Your task to perform on an android device: Add asus zenbook to the cart on amazon, then select checkout. Image 0: 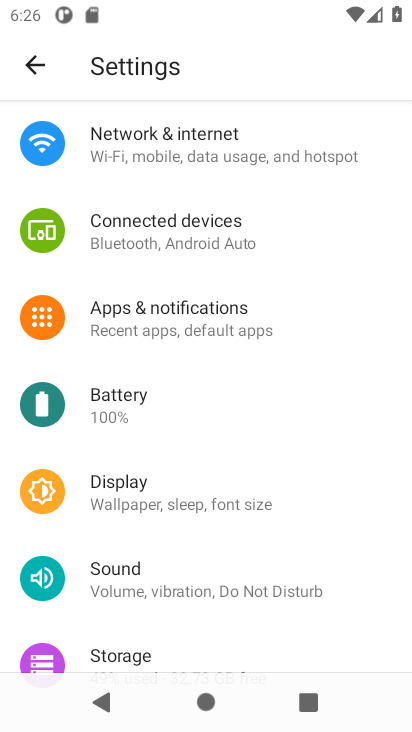
Step 0: press home button
Your task to perform on an android device: Add asus zenbook to the cart on amazon, then select checkout. Image 1: 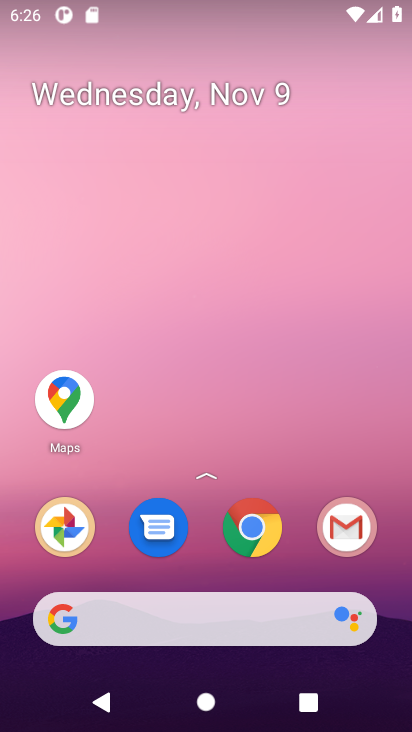
Step 1: drag from (197, 484) to (274, 12)
Your task to perform on an android device: Add asus zenbook to the cart on amazon, then select checkout. Image 2: 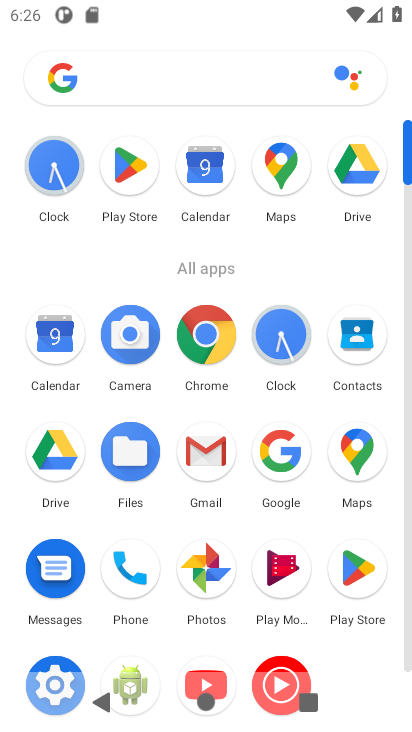
Step 2: click (206, 326)
Your task to perform on an android device: Add asus zenbook to the cart on amazon, then select checkout. Image 3: 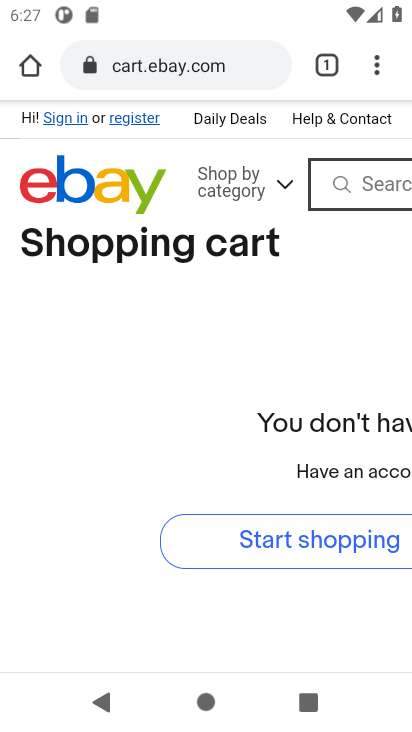
Step 3: click (160, 64)
Your task to perform on an android device: Add asus zenbook to the cart on amazon, then select checkout. Image 4: 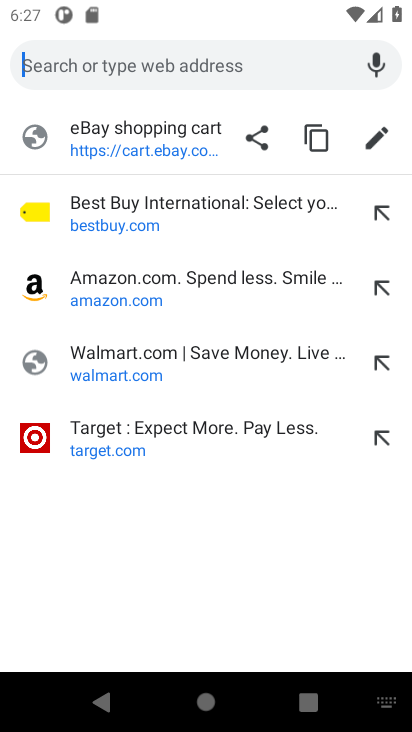
Step 4: click (116, 268)
Your task to perform on an android device: Add asus zenbook to the cart on amazon, then select checkout. Image 5: 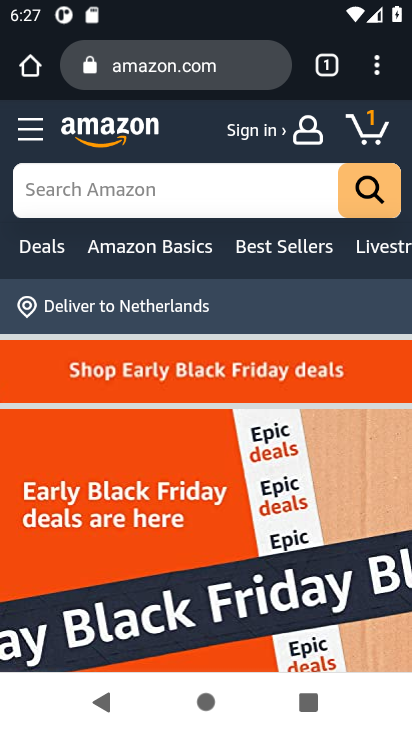
Step 5: click (91, 192)
Your task to perform on an android device: Add asus zenbook to the cart on amazon, then select checkout. Image 6: 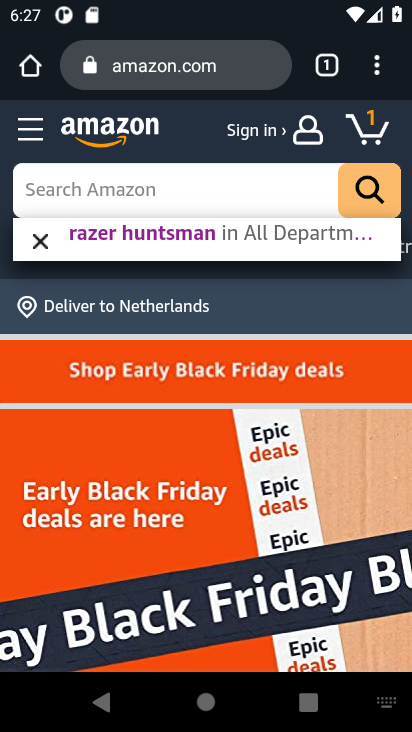
Step 6: type "asus zenbook"
Your task to perform on an android device: Add asus zenbook to the cart on amazon, then select checkout. Image 7: 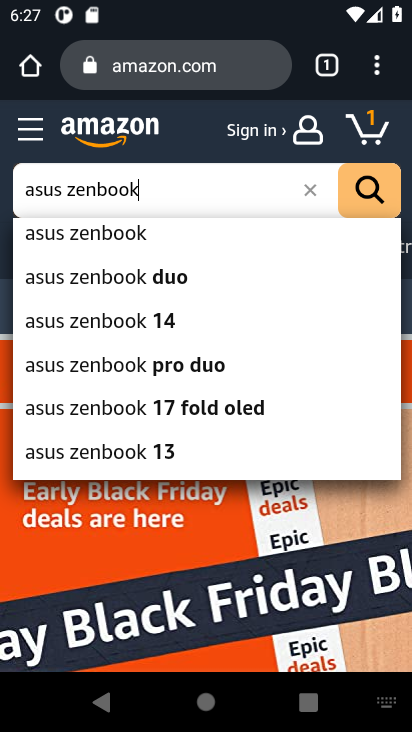
Step 7: click (116, 240)
Your task to perform on an android device: Add asus zenbook to the cart on amazon, then select checkout. Image 8: 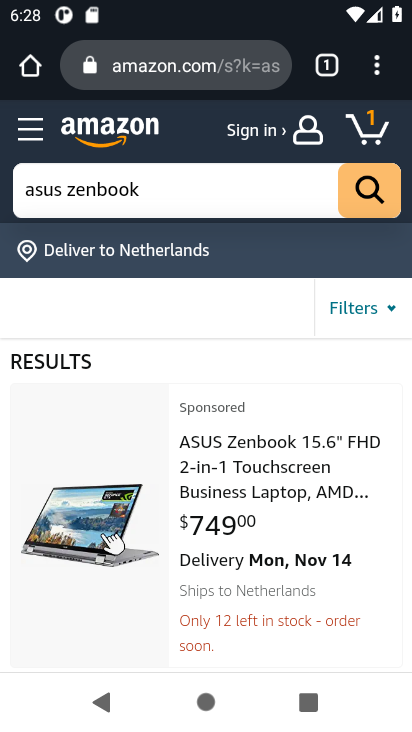
Step 8: click (218, 476)
Your task to perform on an android device: Add asus zenbook to the cart on amazon, then select checkout. Image 9: 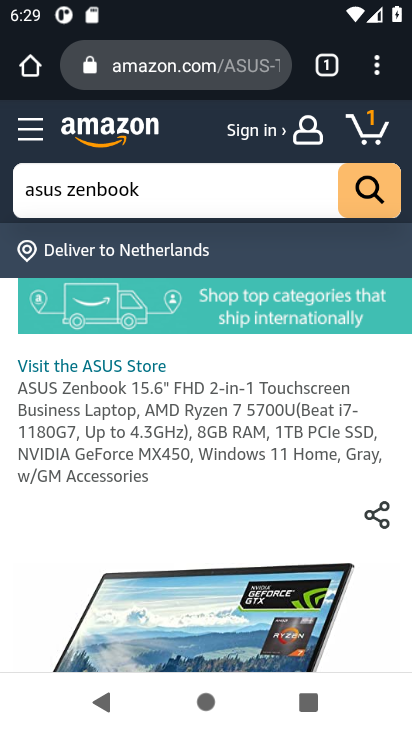
Step 9: drag from (167, 549) to (212, 5)
Your task to perform on an android device: Add asus zenbook to the cart on amazon, then select checkout. Image 10: 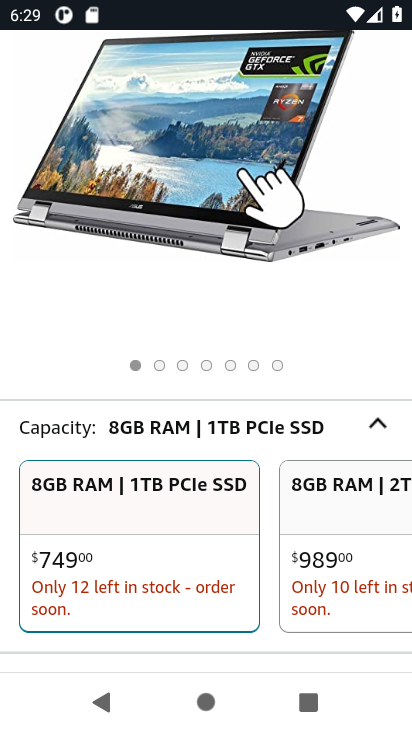
Step 10: drag from (262, 621) to (301, 82)
Your task to perform on an android device: Add asus zenbook to the cart on amazon, then select checkout. Image 11: 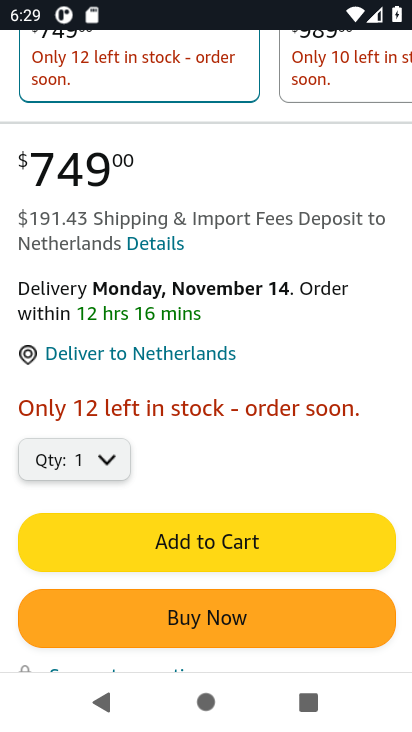
Step 11: click (208, 538)
Your task to perform on an android device: Add asus zenbook to the cart on amazon, then select checkout. Image 12: 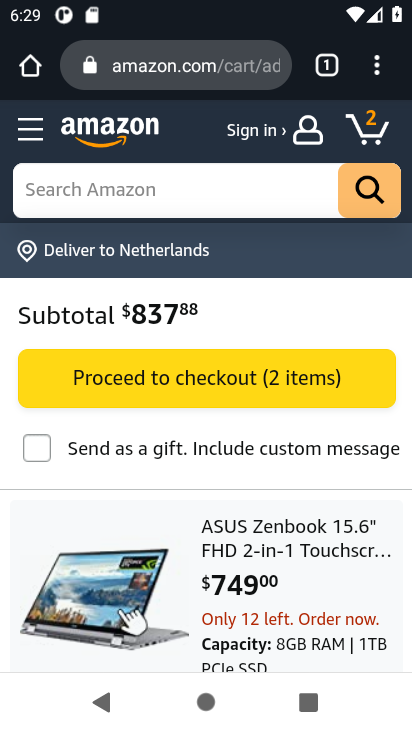
Step 12: click (195, 387)
Your task to perform on an android device: Add asus zenbook to the cart on amazon, then select checkout. Image 13: 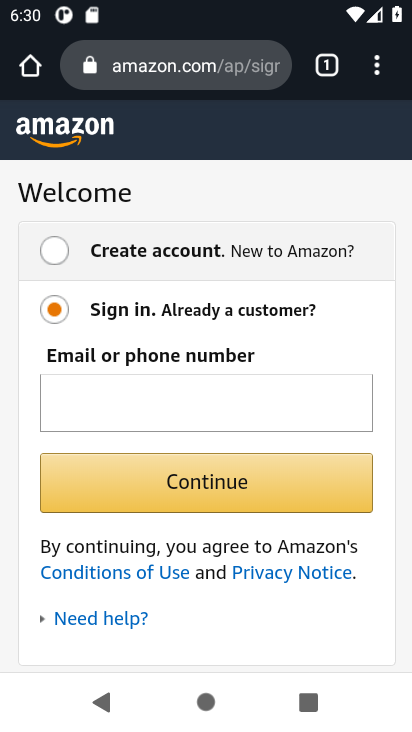
Step 13: task complete